Your task to perform on an android device: Open Maps and search for coffee Image 0: 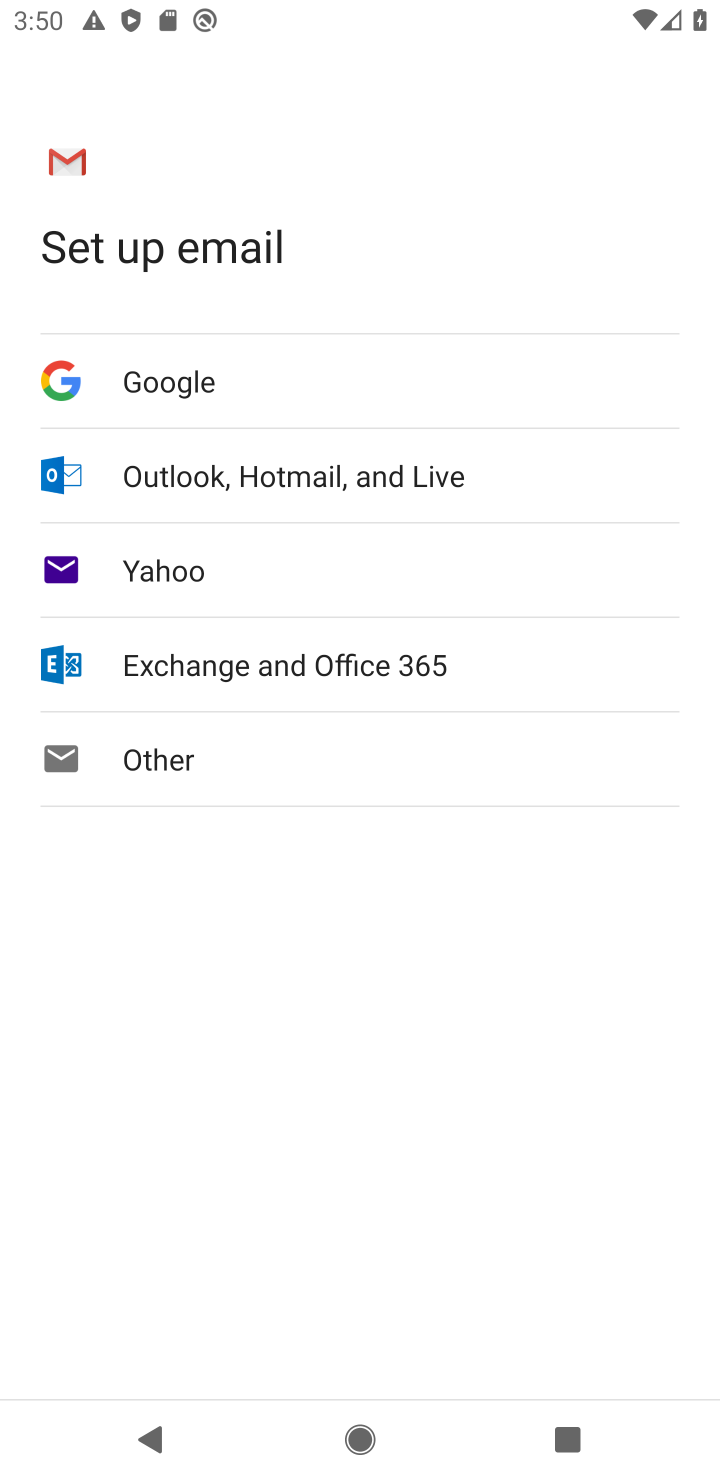
Step 0: press home button
Your task to perform on an android device: Open Maps and search for coffee Image 1: 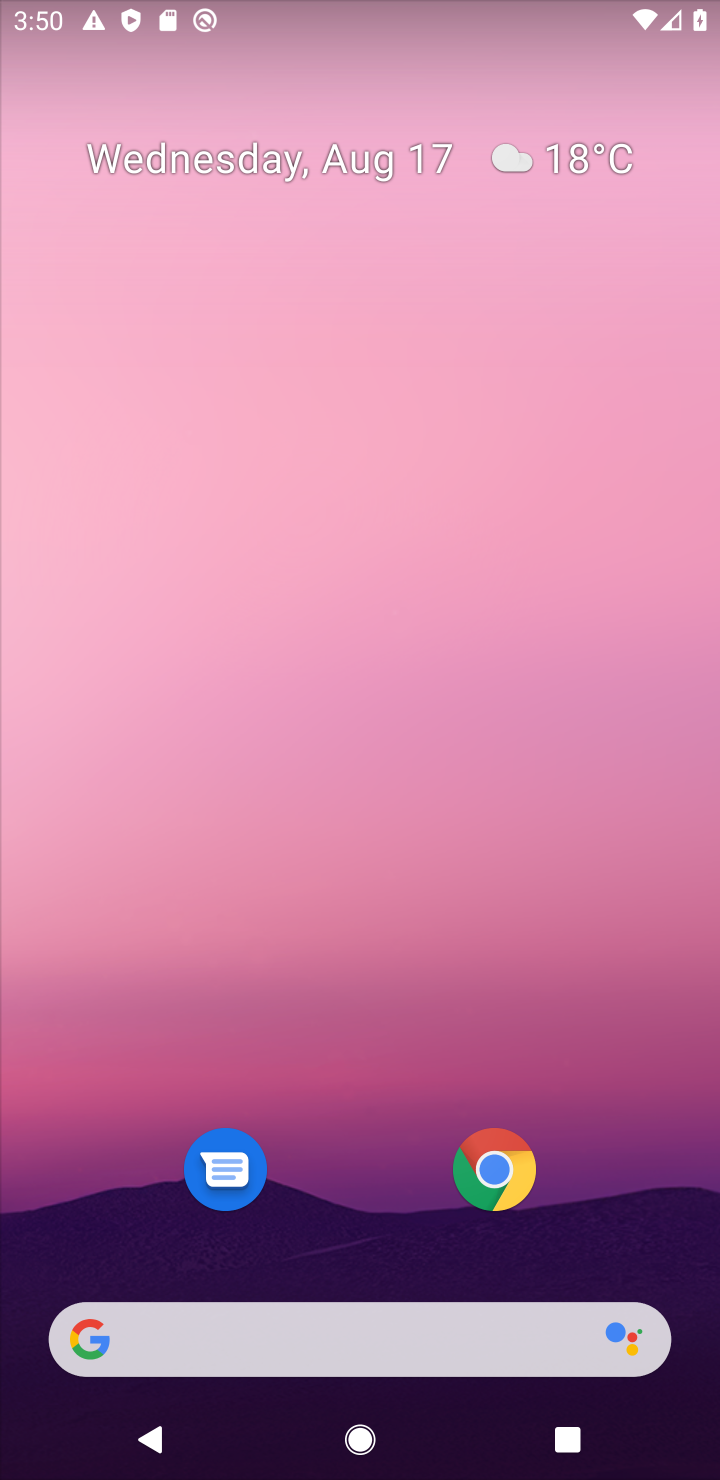
Step 1: drag from (393, 1185) to (457, 157)
Your task to perform on an android device: Open Maps and search for coffee Image 2: 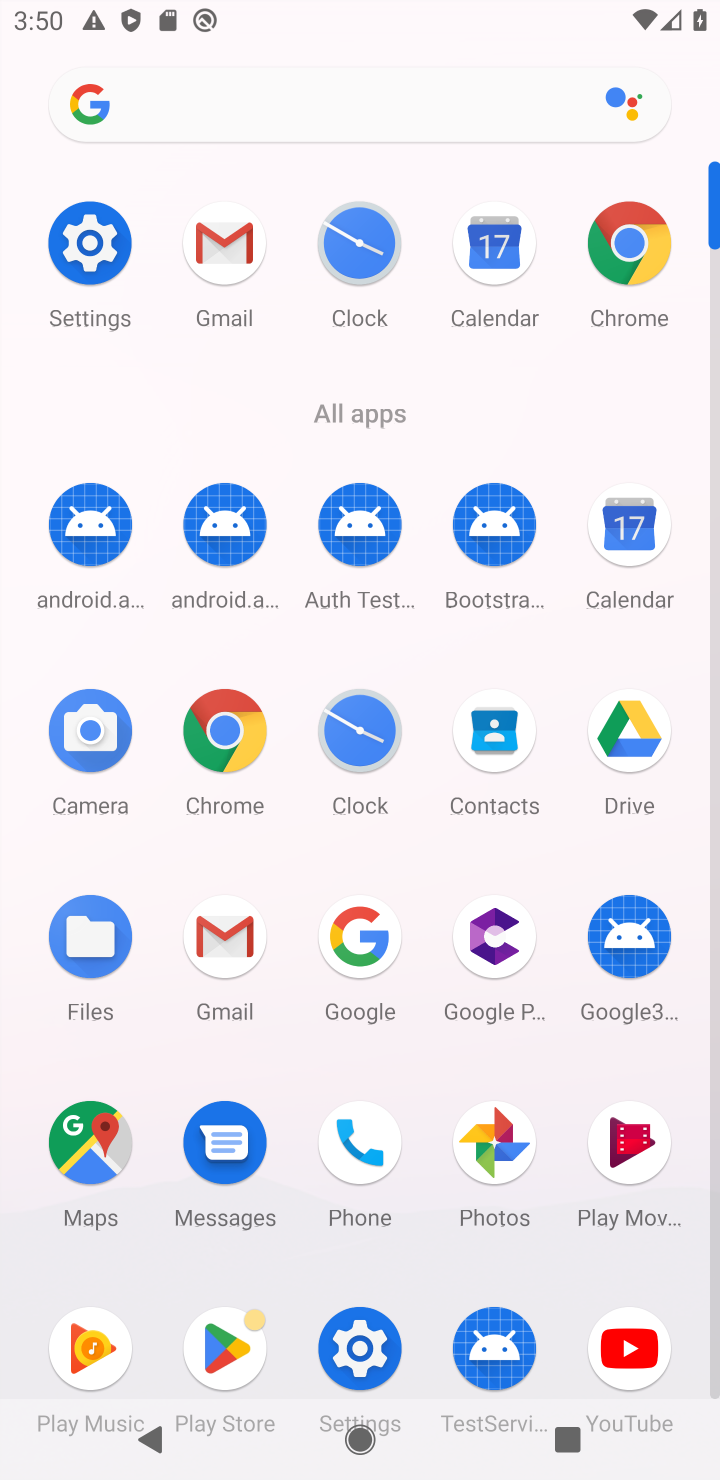
Step 2: click (69, 1149)
Your task to perform on an android device: Open Maps and search for coffee Image 3: 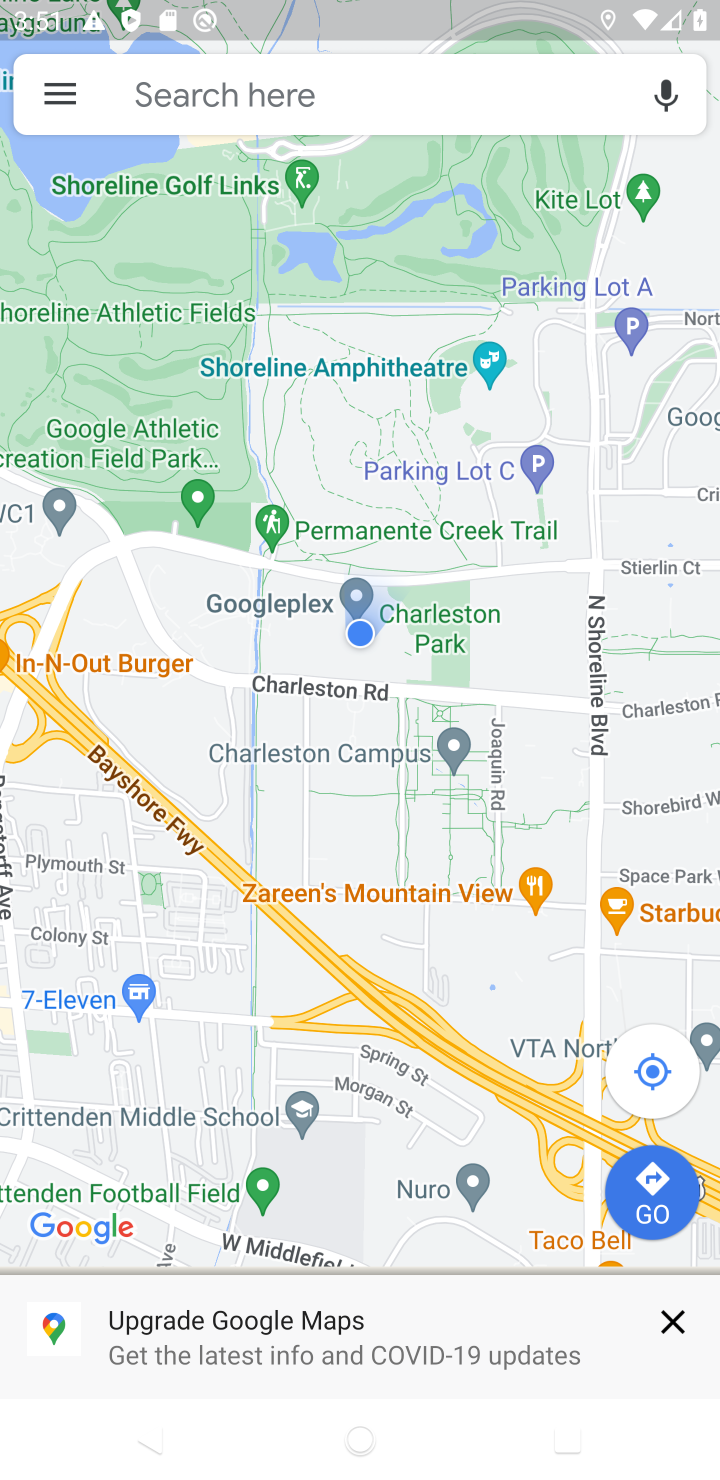
Step 3: click (279, 97)
Your task to perform on an android device: Open Maps and search for coffee Image 4: 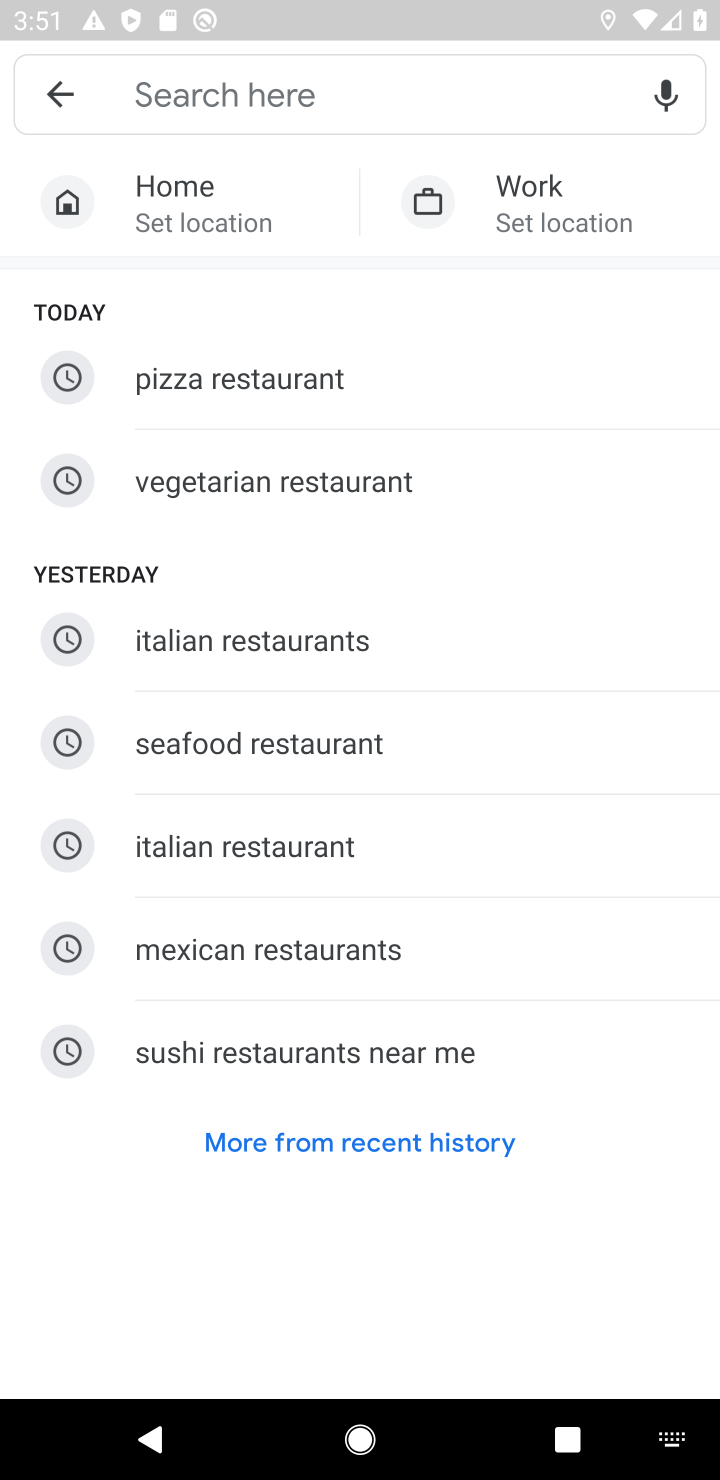
Step 4: type "coffee"
Your task to perform on an android device: Open Maps and search for coffee Image 5: 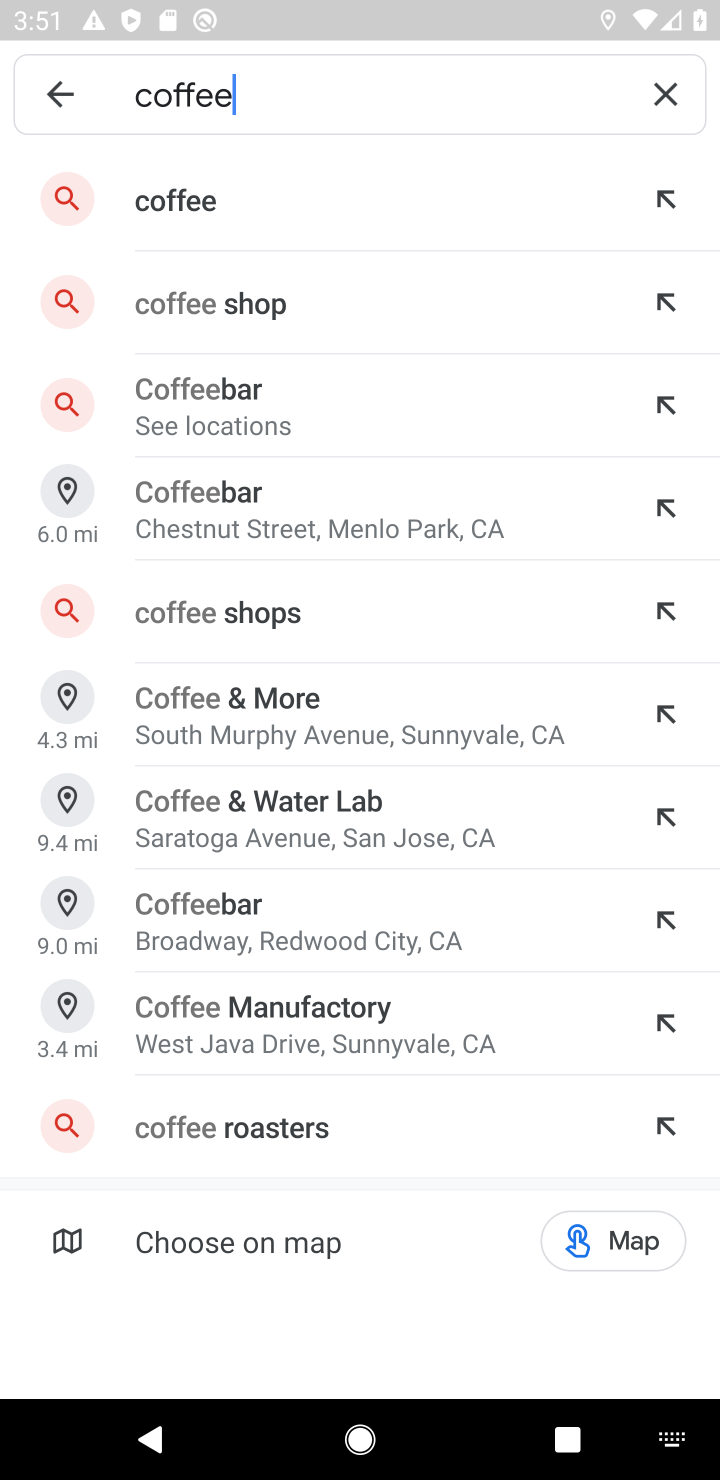
Step 5: click (197, 198)
Your task to perform on an android device: Open Maps and search for coffee Image 6: 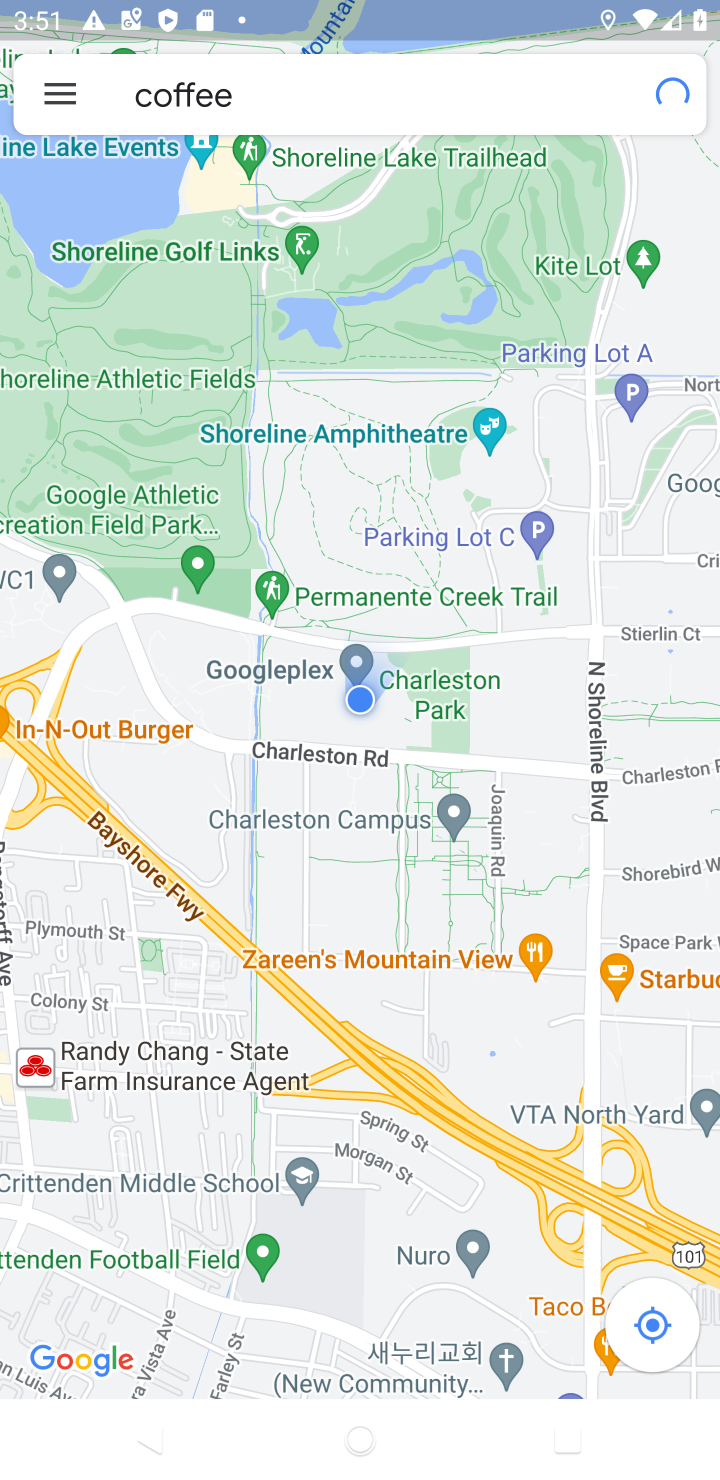
Step 6: task complete